Your task to perform on an android device: open device folders in google photos Image 0: 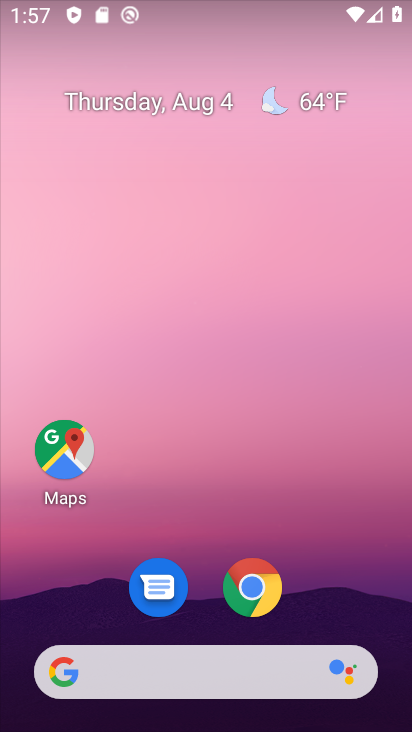
Step 0: drag from (337, 607) to (300, 65)
Your task to perform on an android device: open device folders in google photos Image 1: 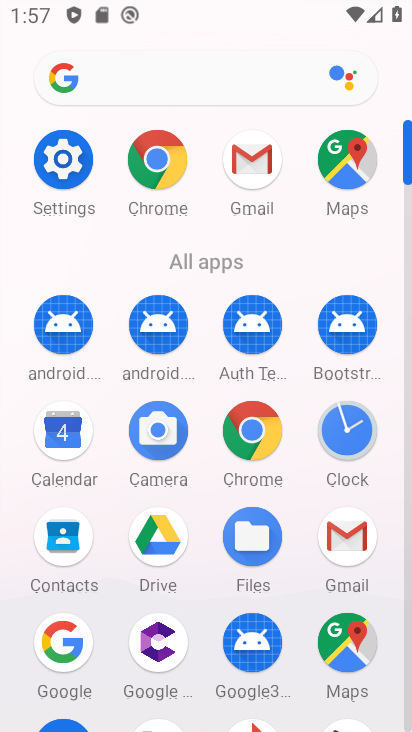
Step 1: drag from (210, 590) to (185, 281)
Your task to perform on an android device: open device folders in google photos Image 2: 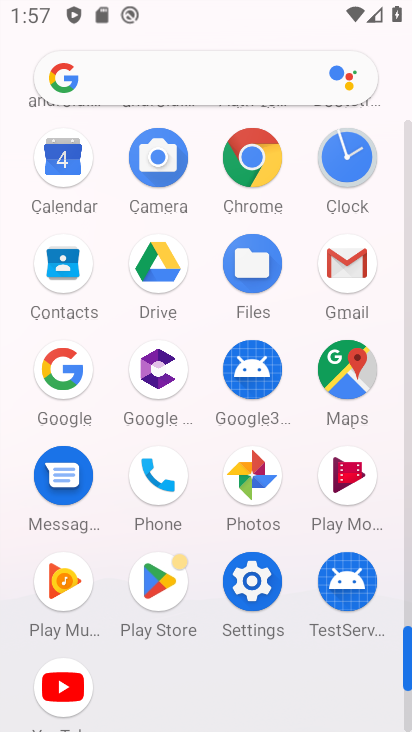
Step 2: click (258, 473)
Your task to perform on an android device: open device folders in google photos Image 3: 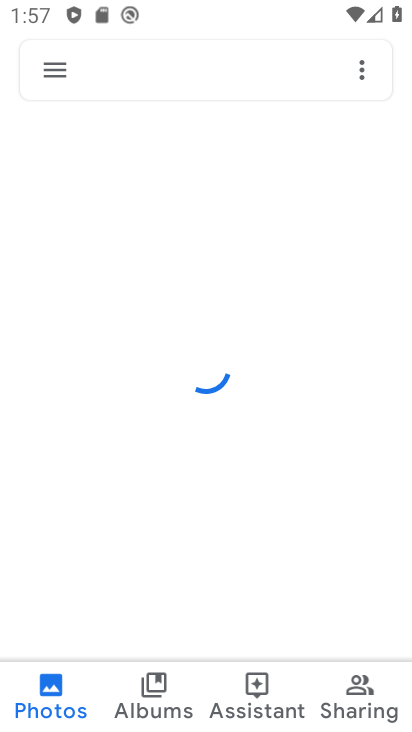
Step 3: click (53, 66)
Your task to perform on an android device: open device folders in google photos Image 4: 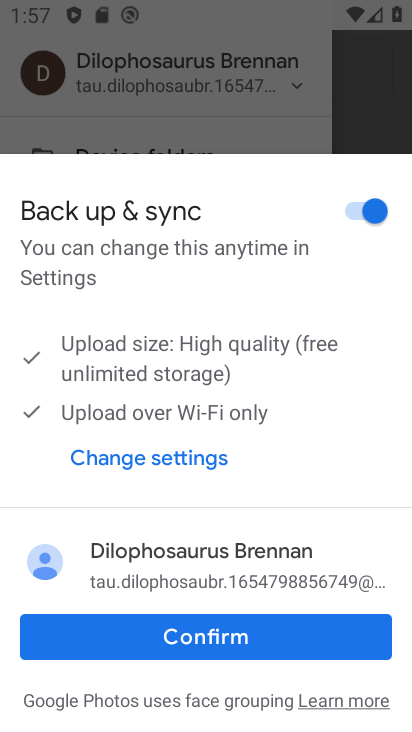
Step 4: click (175, 625)
Your task to perform on an android device: open device folders in google photos Image 5: 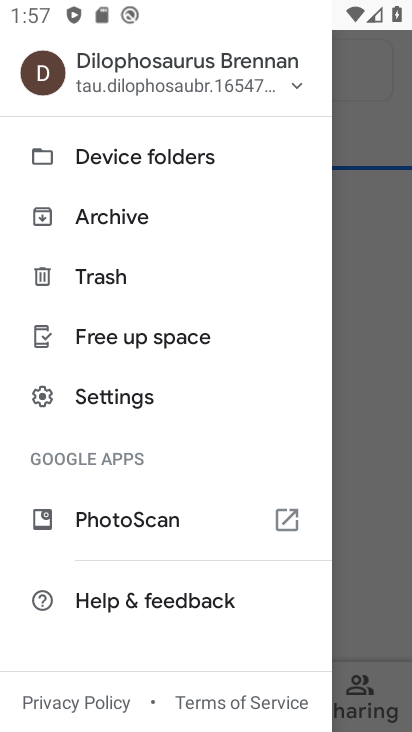
Step 5: click (104, 152)
Your task to perform on an android device: open device folders in google photos Image 6: 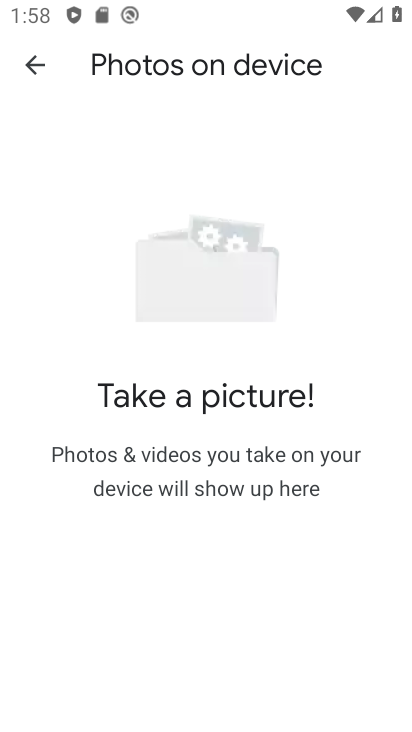
Step 6: task complete